Your task to perform on an android device: Open Youtube and go to the subscriptions tab Image 0: 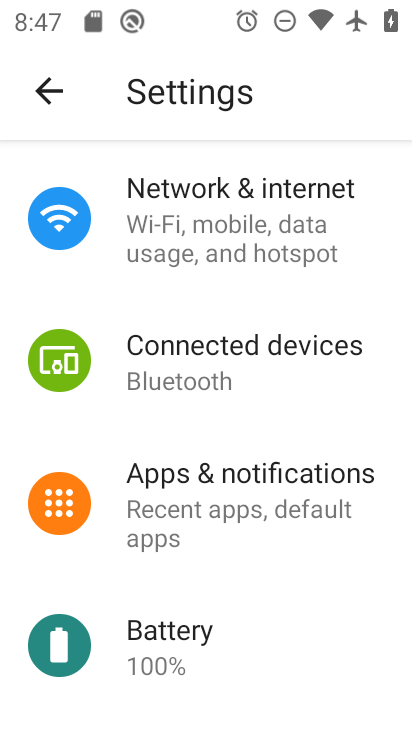
Step 0: press home button
Your task to perform on an android device: Open Youtube and go to the subscriptions tab Image 1: 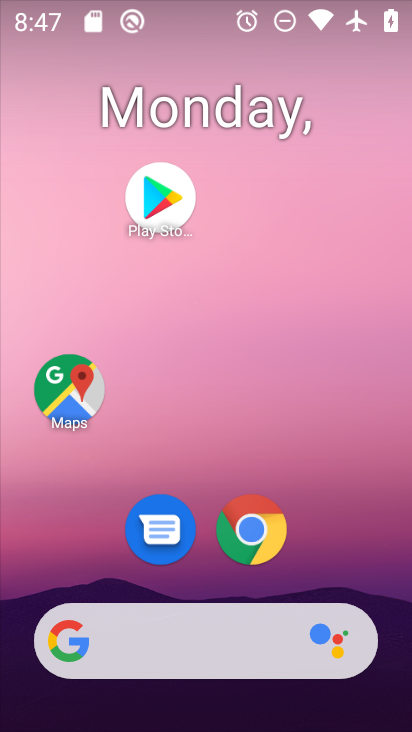
Step 1: drag from (262, 442) to (170, 35)
Your task to perform on an android device: Open Youtube and go to the subscriptions tab Image 2: 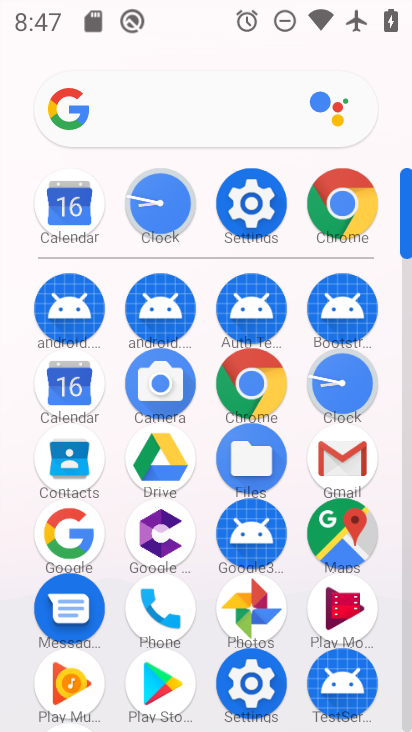
Step 2: drag from (195, 642) to (173, 335)
Your task to perform on an android device: Open Youtube and go to the subscriptions tab Image 3: 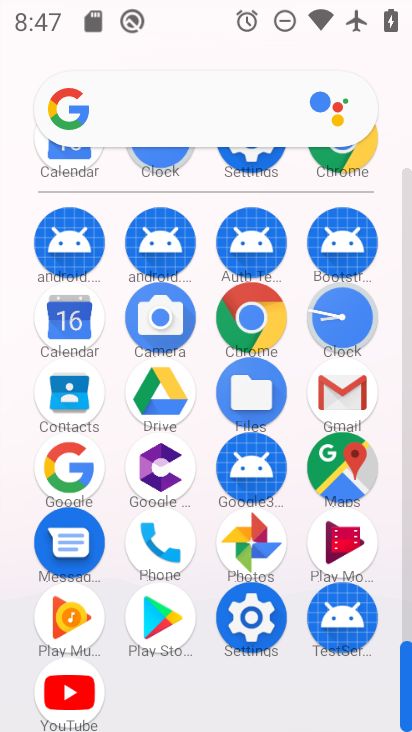
Step 3: click (77, 685)
Your task to perform on an android device: Open Youtube and go to the subscriptions tab Image 4: 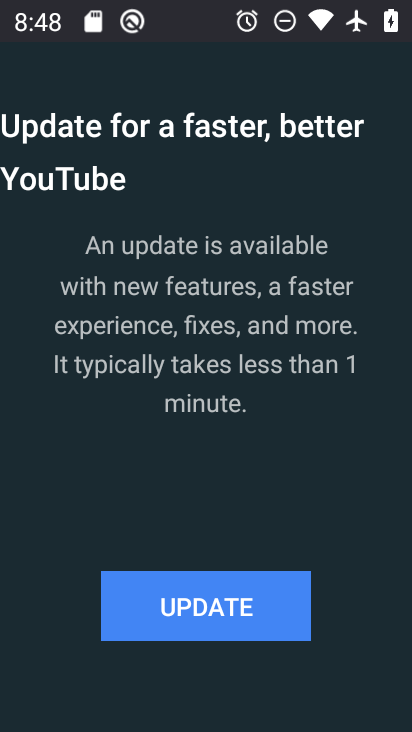
Step 4: click (223, 610)
Your task to perform on an android device: Open Youtube and go to the subscriptions tab Image 5: 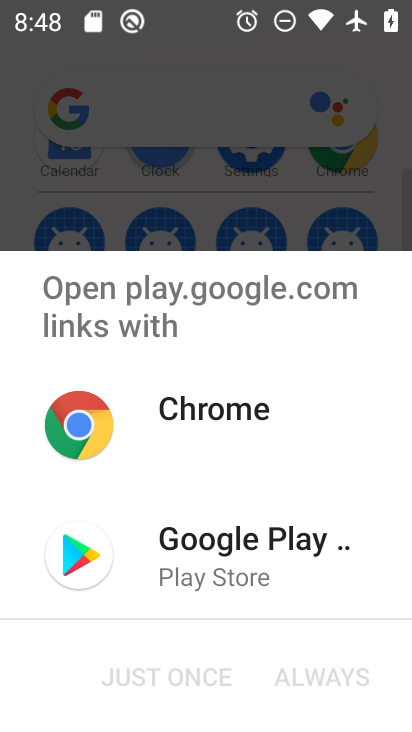
Step 5: click (181, 534)
Your task to perform on an android device: Open Youtube and go to the subscriptions tab Image 6: 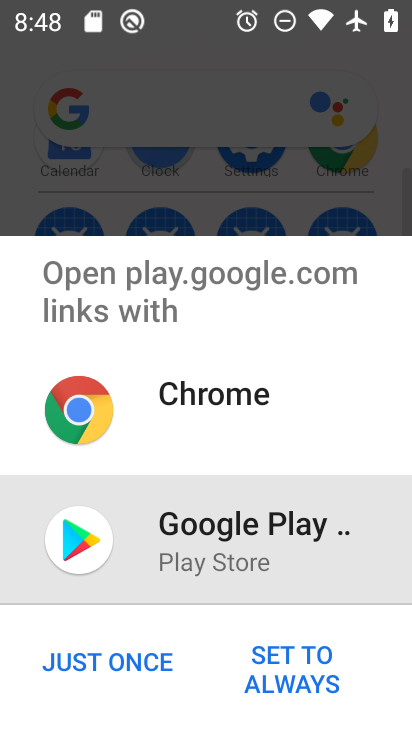
Step 6: click (121, 653)
Your task to perform on an android device: Open Youtube and go to the subscriptions tab Image 7: 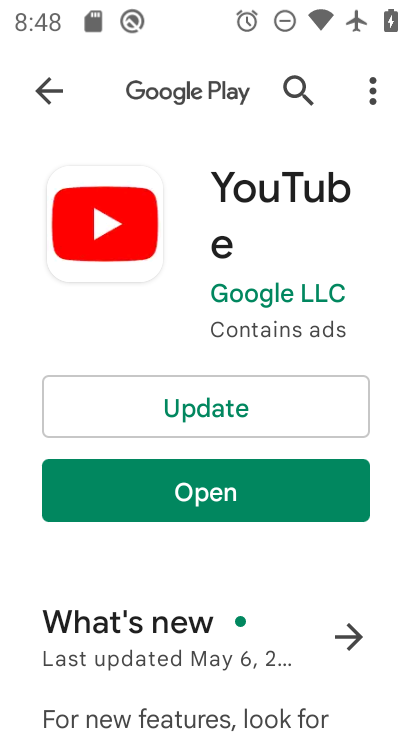
Step 7: click (191, 404)
Your task to perform on an android device: Open Youtube and go to the subscriptions tab Image 8: 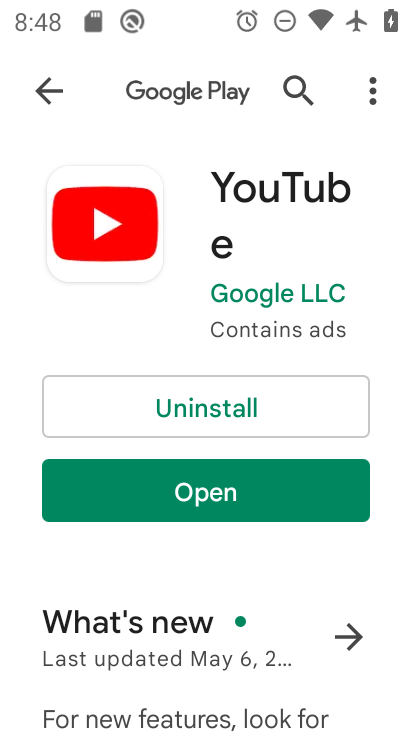
Step 8: click (208, 486)
Your task to perform on an android device: Open Youtube and go to the subscriptions tab Image 9: 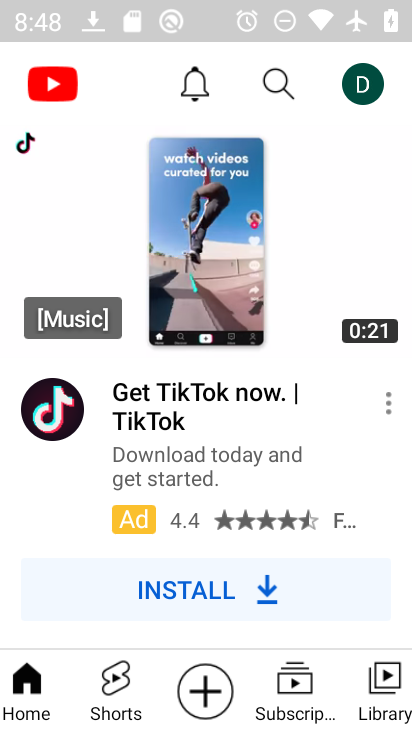
Step 9: click (291, 687)
Your task to perform on an android device: Open Youtube and go to the subscriptions tab Image 10: 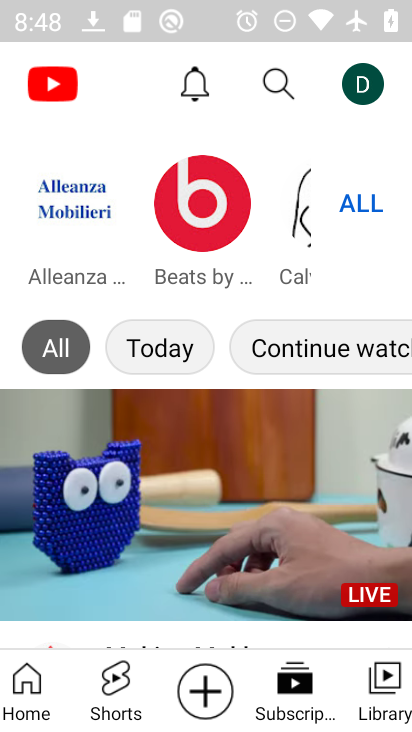
Step 10: task complete